Your task to perform on an android device: Open battery settings Image 0: 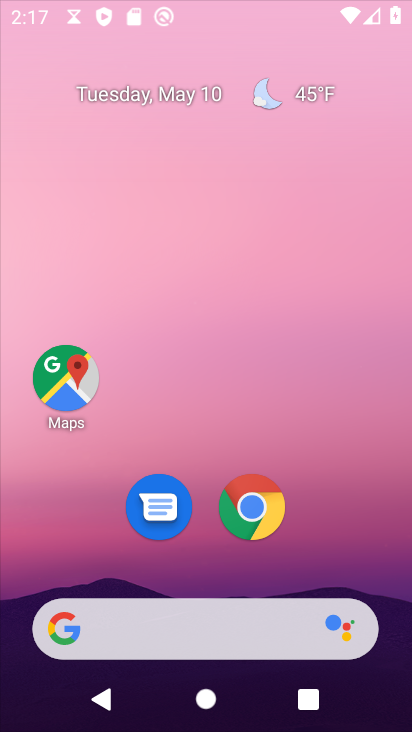
Step 0: click (155, 241)
Your task to perform on an android device: Open battery settings Image 1: 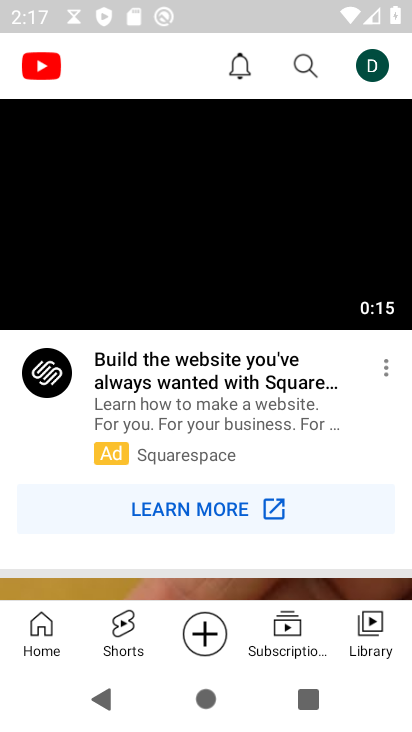
Step 1: press home button
Your task to perform on an android device: Open battery settings Image 2: 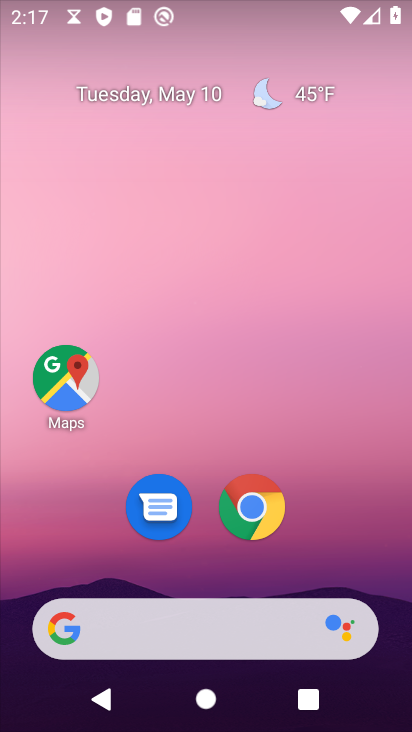
Step 2: drag from (316, 544) to (293, 130)
Your task to perform on an android device: Open battery settings Image 3: 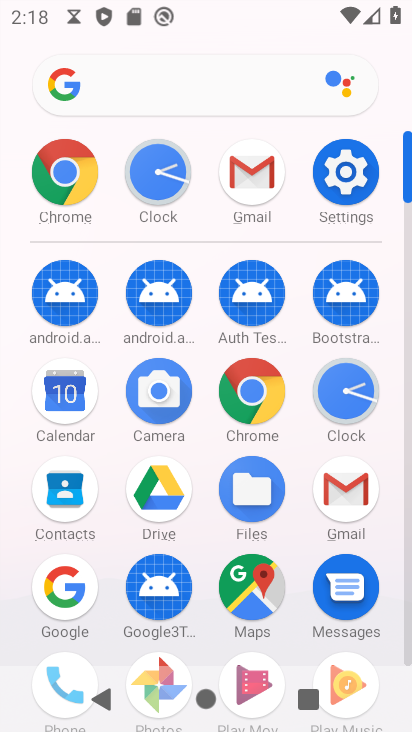
Step 3: click (345, 152)
Your task to perform on an android device: Open battery settings Image 4: 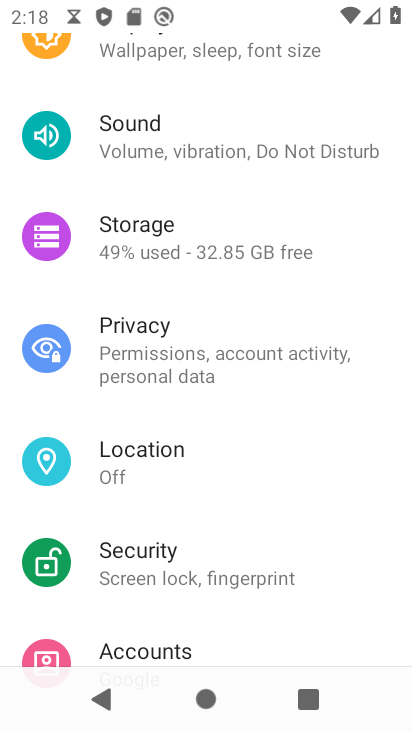
Step 4: drag from (184, 188) to (147, 411)
Your task to perform on an android device: Open battery settings Image 5: 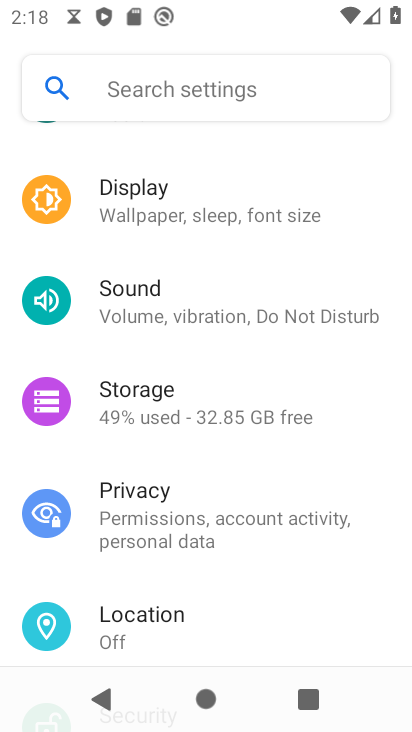
Step 5: drag from (168, 205) to (139, 375)
Your task to perform on an android device: Open battery settings Image 6: 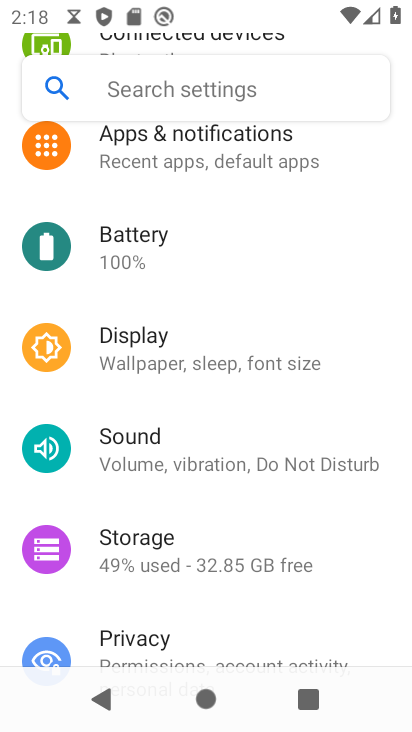
Step 6: click (130, 253)
Your task to perform on an android device: Open battery settings Image 7: 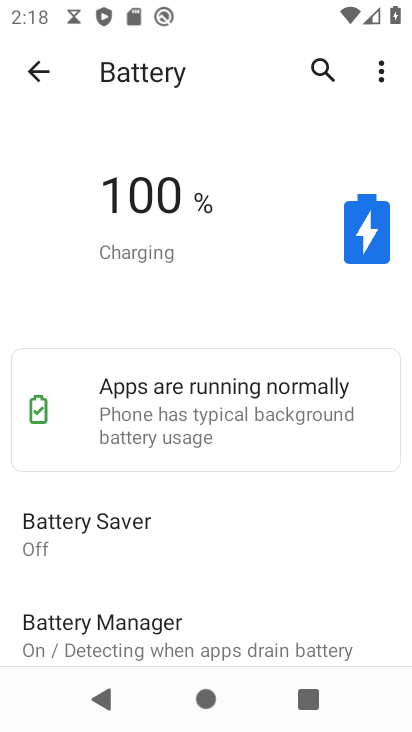
Step 7: task complete